Your task to perform on an android device: change keyboard looks Image 0: 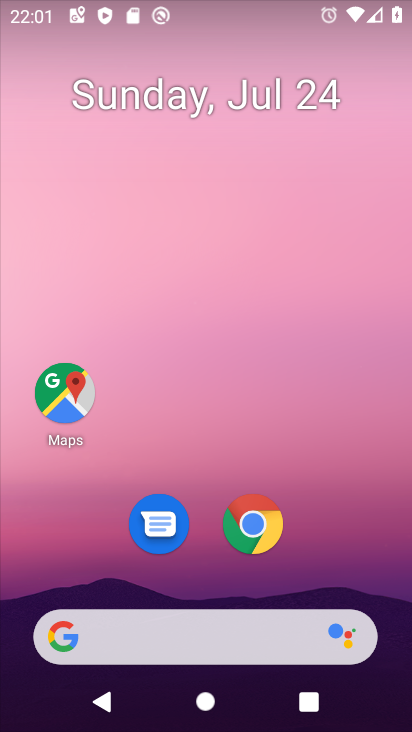
Step 0: drag from (148, 631) to (312, 94)
Your task to perform on an android device: change keyboard looks Image 1: 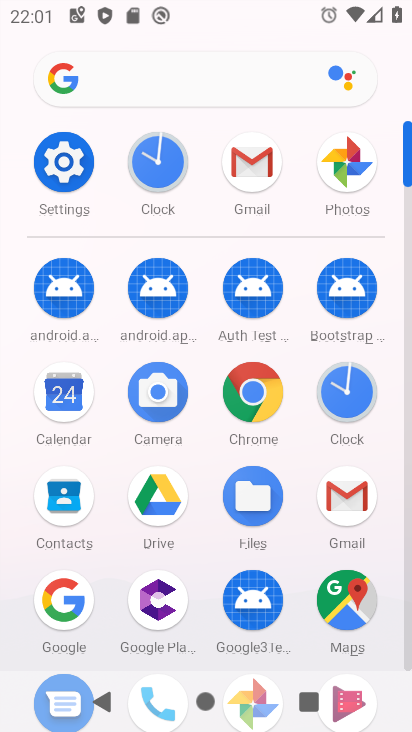
Step 1: click (63, 169)
Your task to perform on an android device: change keyboard looks Image 2: 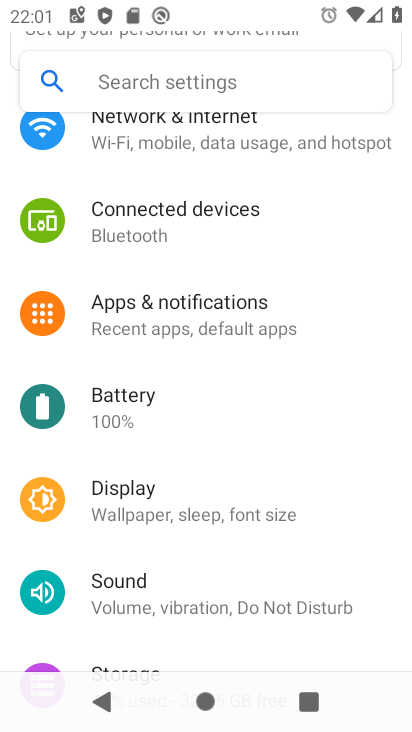
Step 2: drag from (270, 642) to (410, 11)
Your task to perform on an android device: change keyboard looks Image 3: 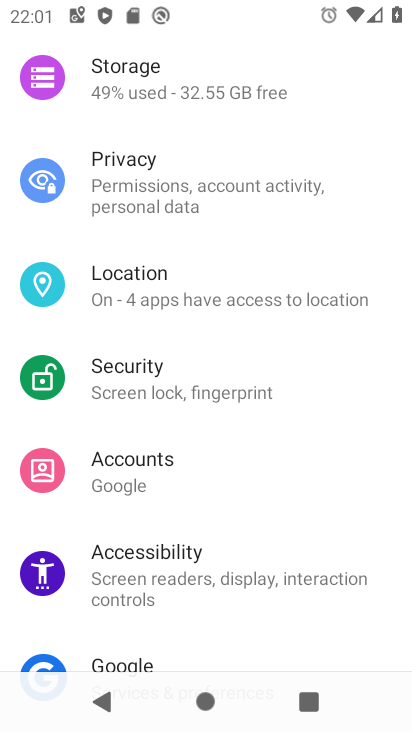
Step 3: drag from (185, 584) to (328, 150)
Your task to perform on an android device: change keyboard looks Image 4: 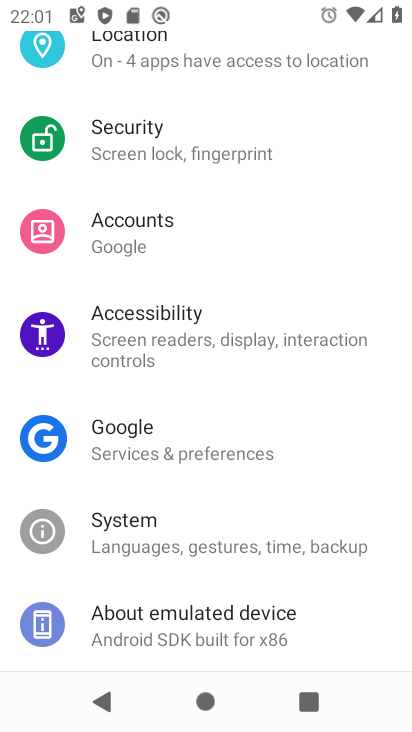
Step 4: drag from (215, 452) to (269, 367)
Your task to perform on an android device: change keyboard looks Image 5: 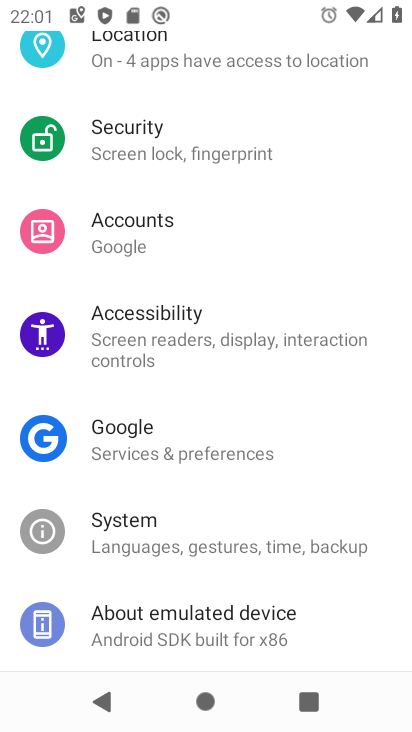
Step 5: drag from (247, 484) to (291, 400)
Your task to perform on an android device: change keyboard looks Image 6: 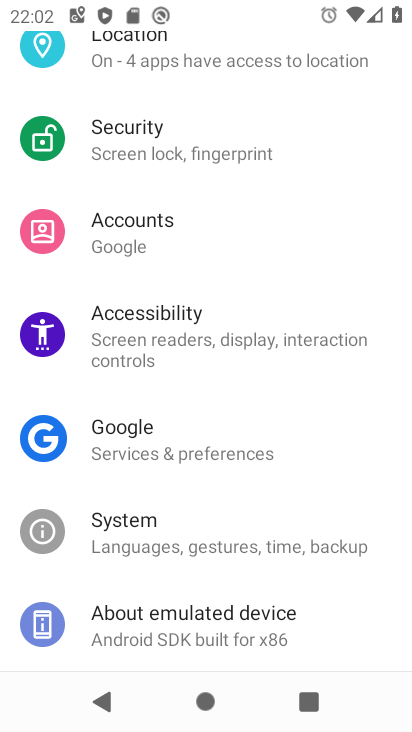
Step 6: click (169, 540)
Your task to perform on an android device: change keyboard looks Image 7: 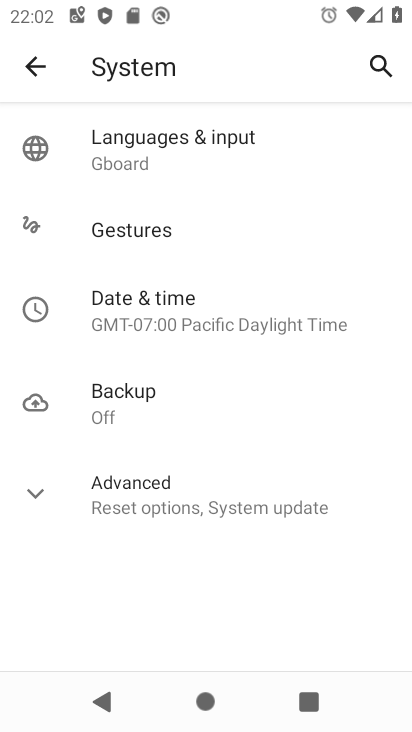
Step 7: click (150, 155)
Your task to perform on an android device: change keyboard looks Image 8: 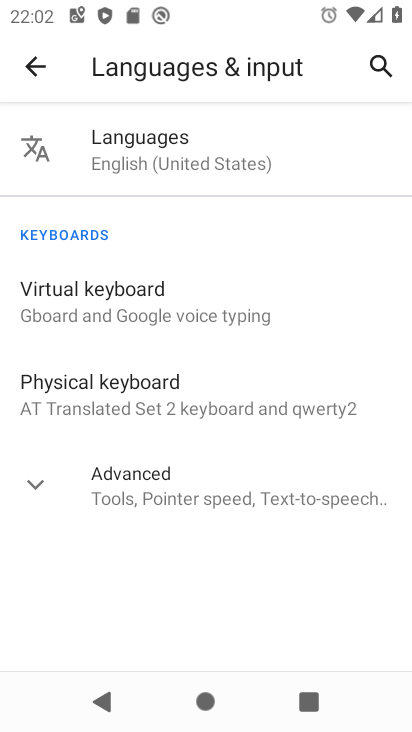
Step 8: click (103, 320)
Your task to perform on an android device: change keyboard looks Image 9: 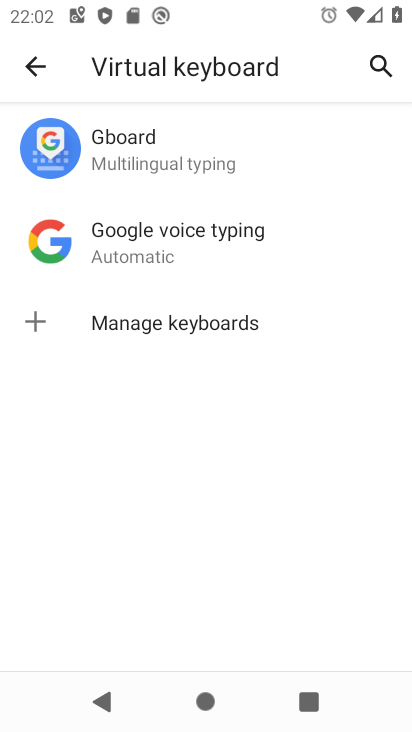
Step 9: click (144, 152)
Your task to perform on an android device: change keyboard looks Image 10: 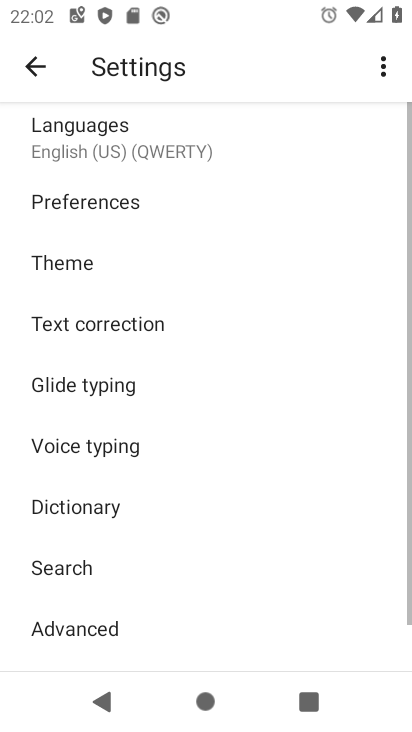
Step 10: click (88, 261)
Your task to perform on an android device: change keyboard looks Image 11: 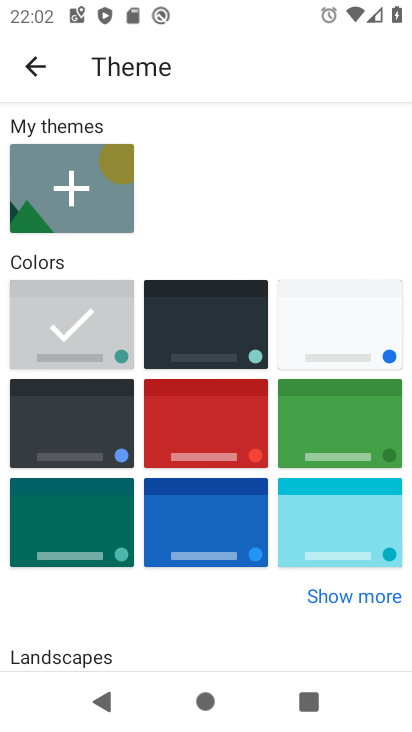
Step 11: click (204, 439)
Your task to perform on an android device: change keyboard looks Image 12: 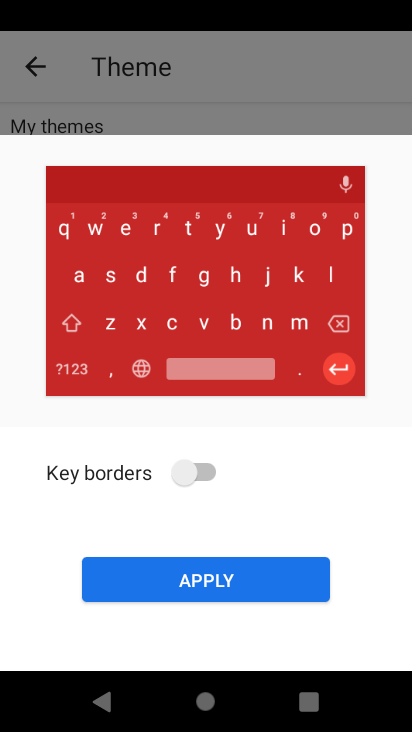
Step 12: click (229, 590)
Your task to perform on an android device: change keyboard looks Image 13: 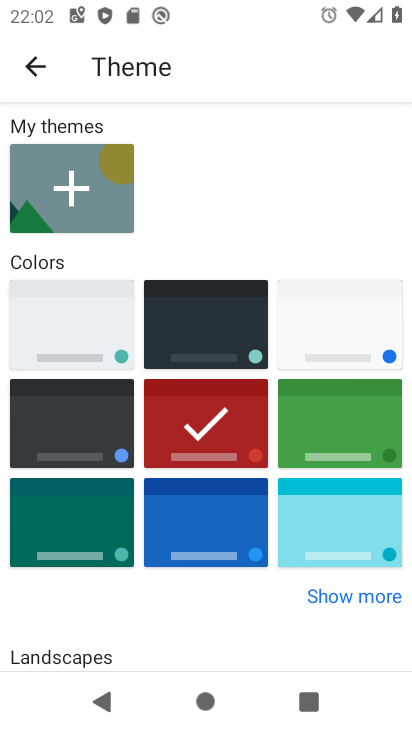
Step 13: task complete